Your task to perform on an android device: Open Google Maps Image 0: 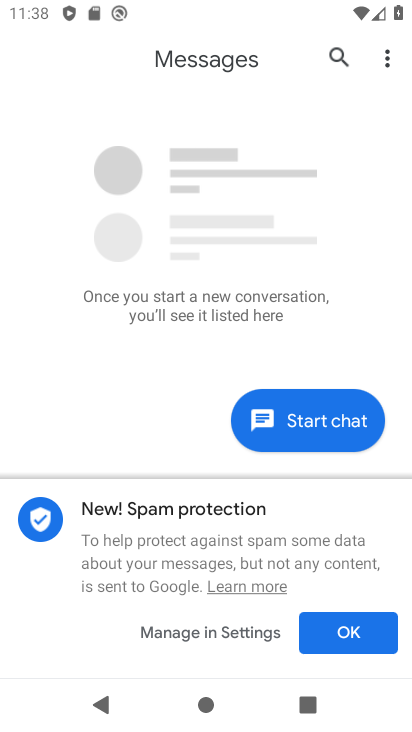
Step 0: press home button
Your task to perform on an android device: Open Google Maps Image 1: 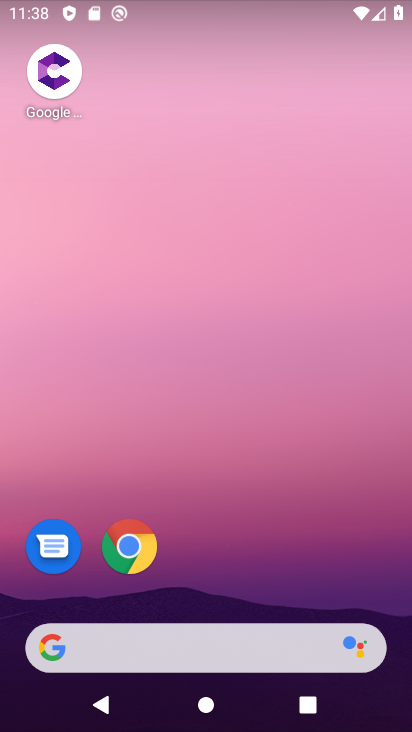
Step 1: drag from (173, 619) to (285, 159)
Your task to perform on an android device: Open Google Maps Image 2: 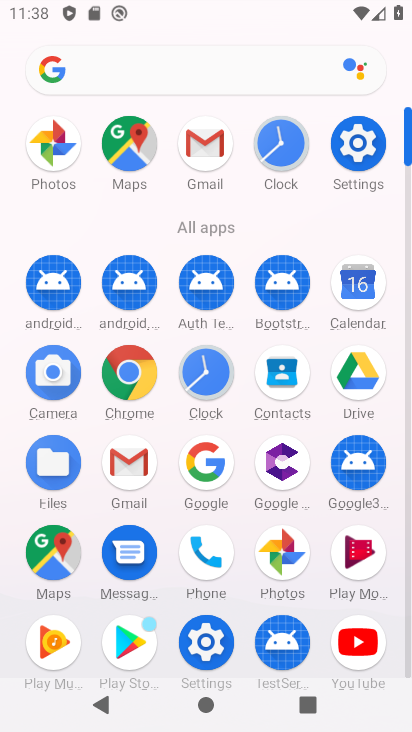
Step 2: click (53, 550)
Your task to perform on an android device: Open Google Maps Image 3: 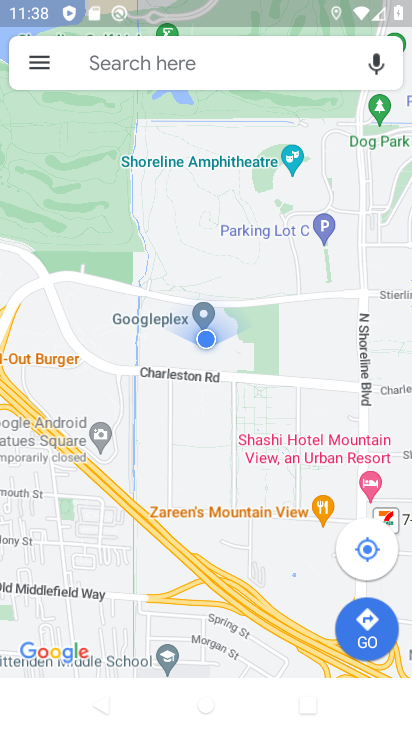
Step 3: task complete